Your task to perform on an android device: Open Maps and search for coffee Image 0: 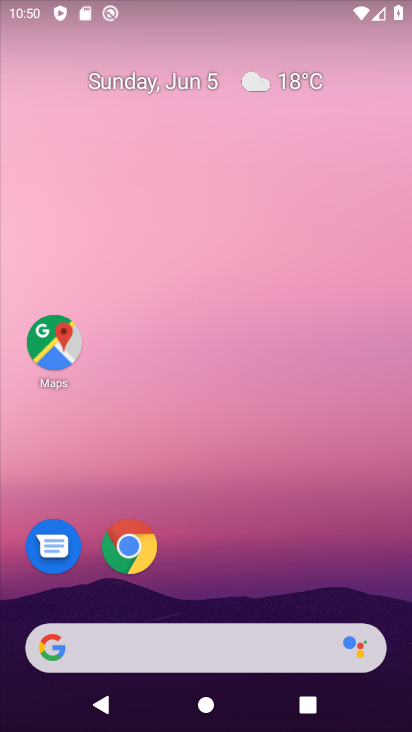
Step 0: click (63, 335)
Your task to perform on an android device: Open Maps and search for coffee Image 1: 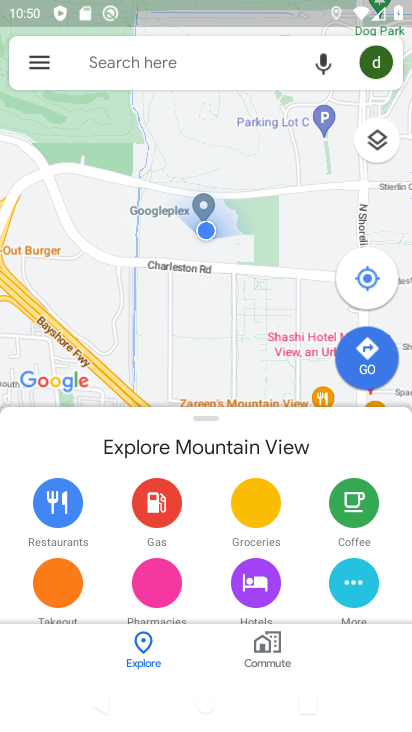
Step 1: click (170, 64)
Your task to perform on an android device: Open Maps and search for coffee Image 2: 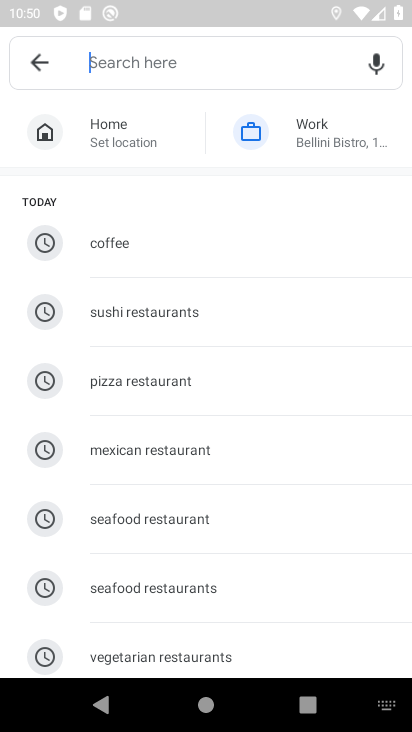
Step 2: click (176, 239)
Your task to perform on an android device: Open Maps and search for coffee Image 3: 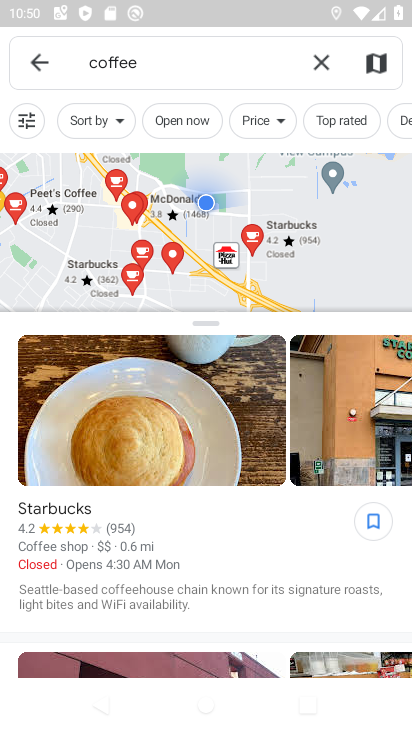
Step 3: task complete